Your task to perform on an android device: Open ESPN.com Image 0: 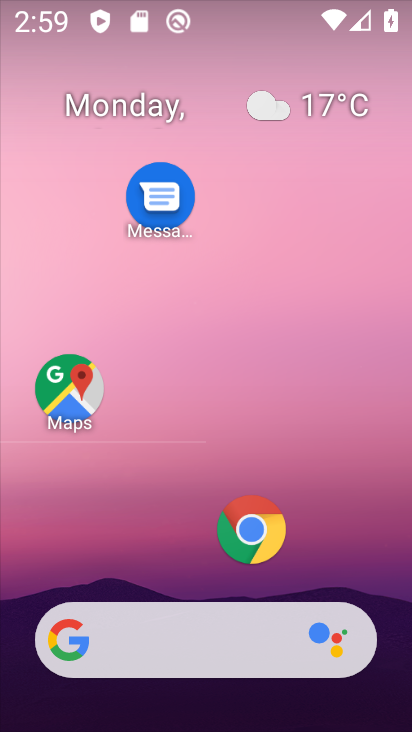
Step 0: drag from (195, 568) to (229, 84)
Your task to perform on an android device: Open ESPN.com Image 1: 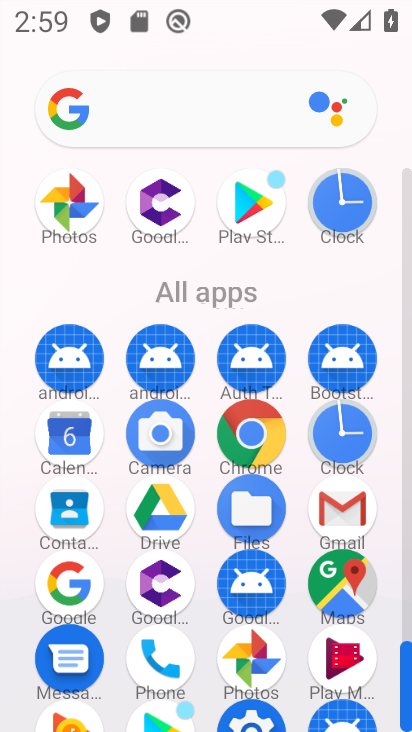
Step 1: click (251, 429)
Your task to perform on an android device: Open ESPN.com Image 2: 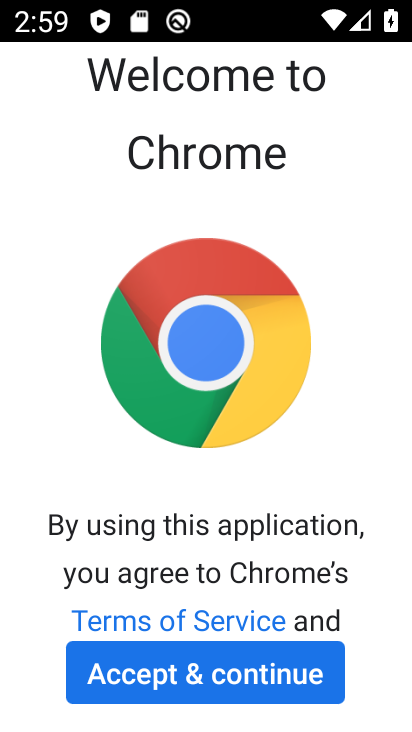
Step 2: click (192, 666)
Your task to perform on an android device: Open ESPN.com Image 3: 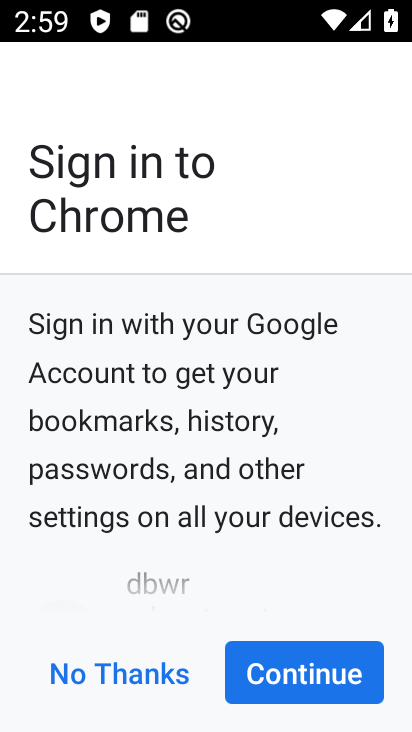
Step 3: click (307, 667)
Your task to perform on an android device: Open ESPN.com Image 4: 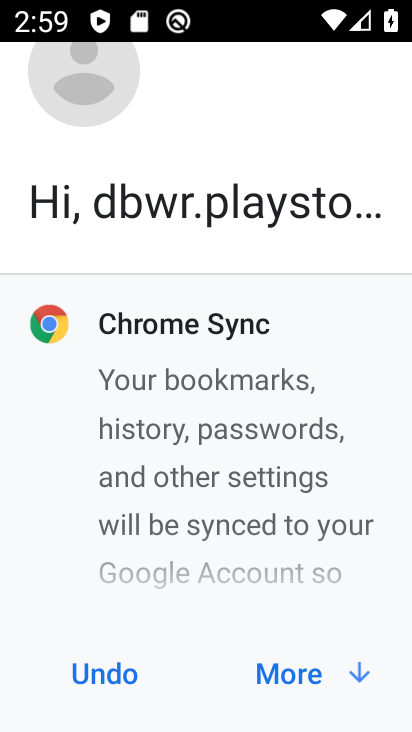
Step 4: click (300, 668)
Your task to perform on an android device: Open ESPN.com Image 5: 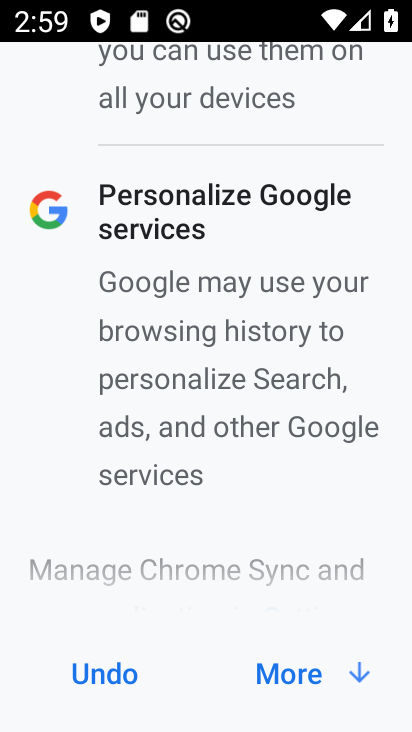
Step 5: click (300, 668)
Your task to perform on an android device: Open ESPN.com Image 6: 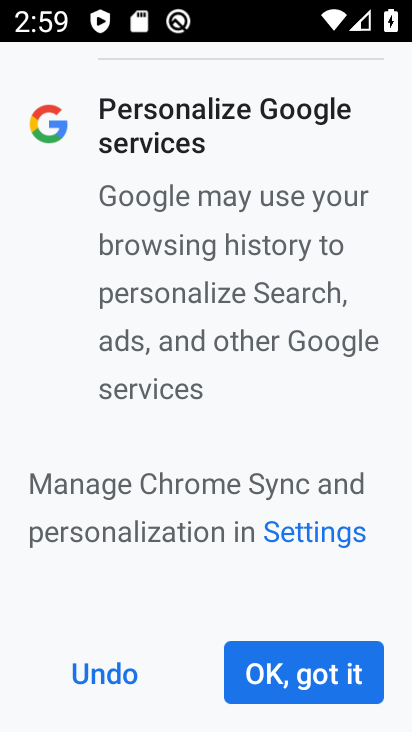
Step 6: click (284, 677)
Your task to perform on an android device: Open ESPN.com Image 7: 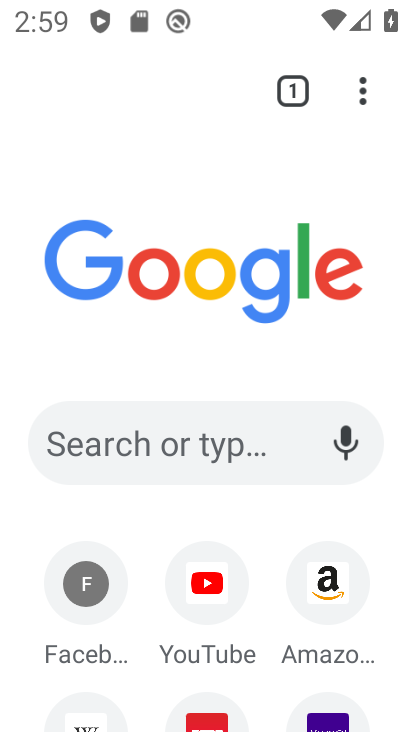
Step 7: click (227, 711)
Your task to perform on an android device: Open ESPN.com Image 8: 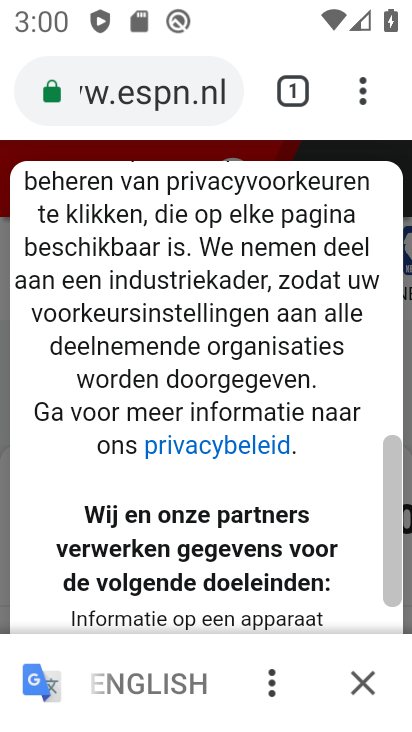
Step 8: drag from (222, 419) to (230, 110)
Your task to perform on an android device: Open ESPN.com Image 9: 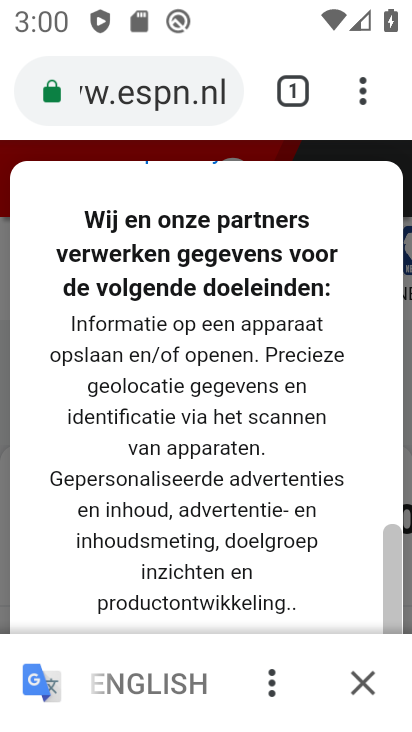
Step 9: drag from (179, 585) to (225, 153)
Your task to perform on an android device: Open ESPN.com Image 10: 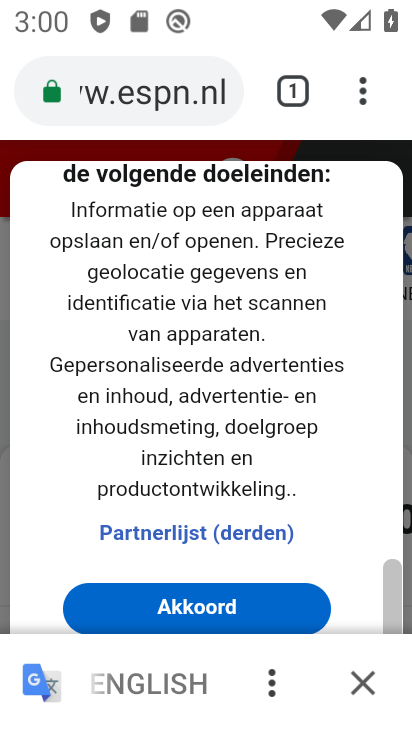
Step 10: click (199, 610)
Your task to perform on an android device: Open ESPN.com Image 11: 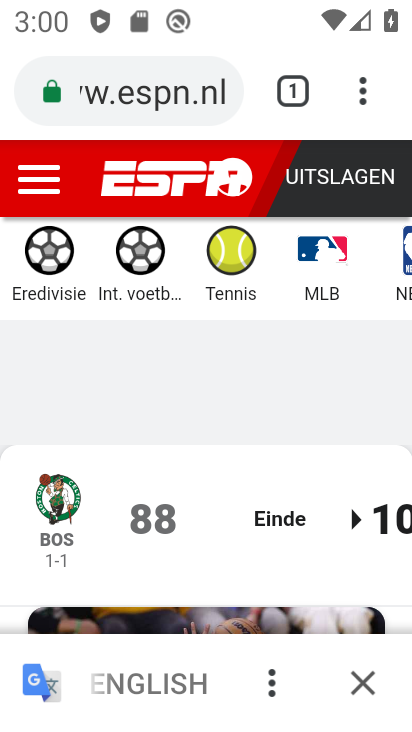
Step 11: task complete